Your task to perform on an android device: Open Google Maps Image 0: 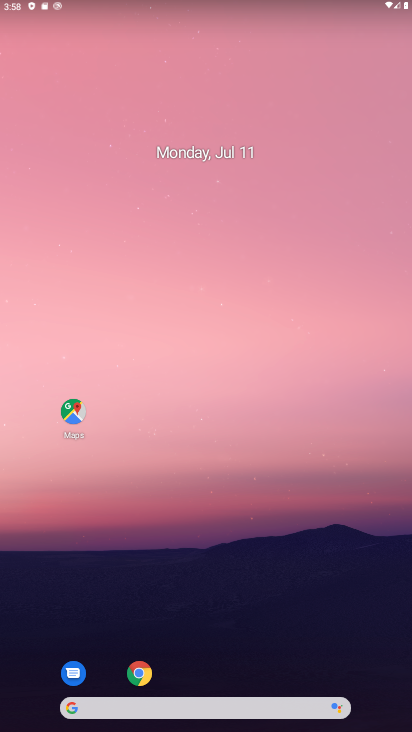
Step 0: drag from (385, 682) to (92, 178)
Your task to perform on an android device: Open Google Maps Image 1: 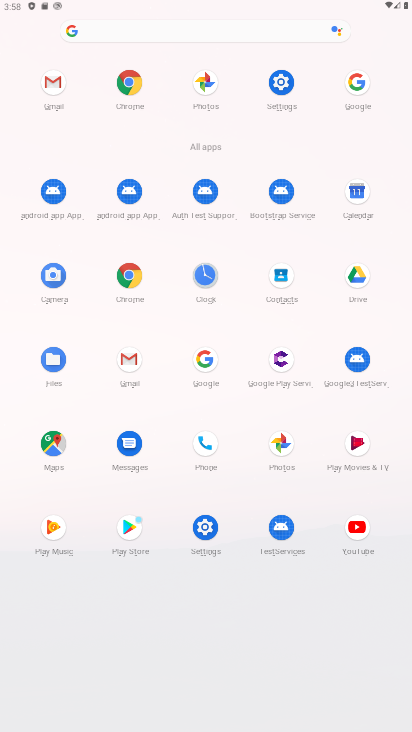
Step 1: click (128, 361)
Your task to perform on an android device: Open Google Maps Image 2: 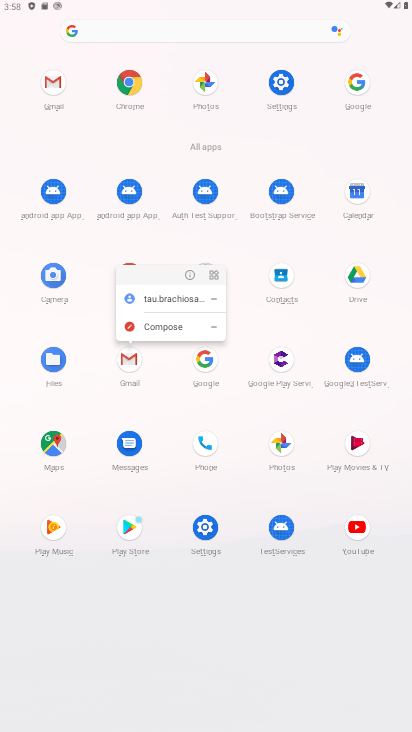
Step 2: click (52, 450)
Your task to perform on an android device: Open Google Maps Image 3: 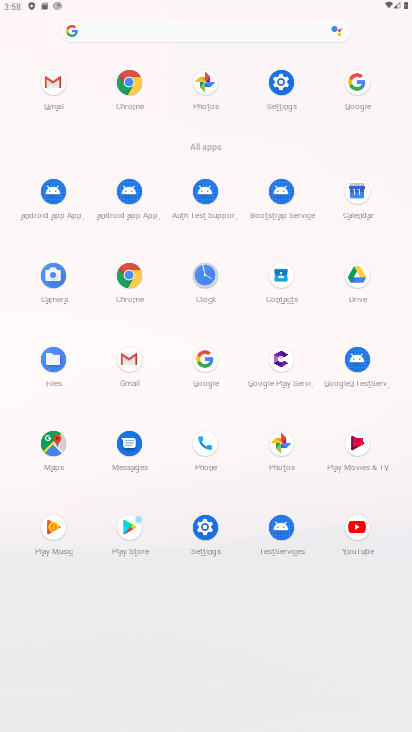
Step 3: click (52, 450)
Your task to perform on an android device: Open Google Maps Image 4: 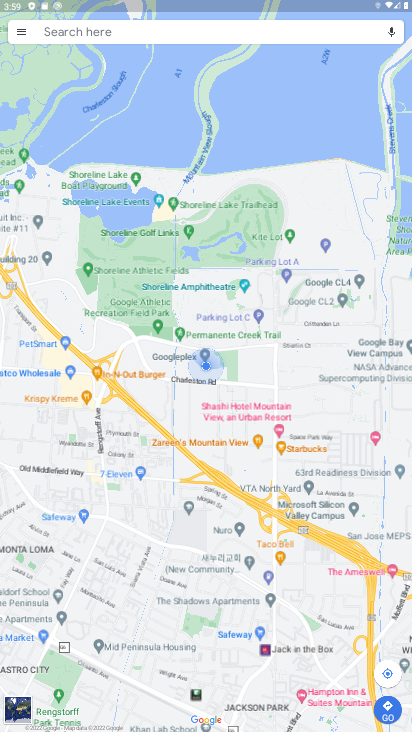
Step 4: task complete